Your task to perform on an android device: View the shopping cart on newegg.com. Add "bose soundlink" to the cart on newegg.com, then select checkout. Image 0: 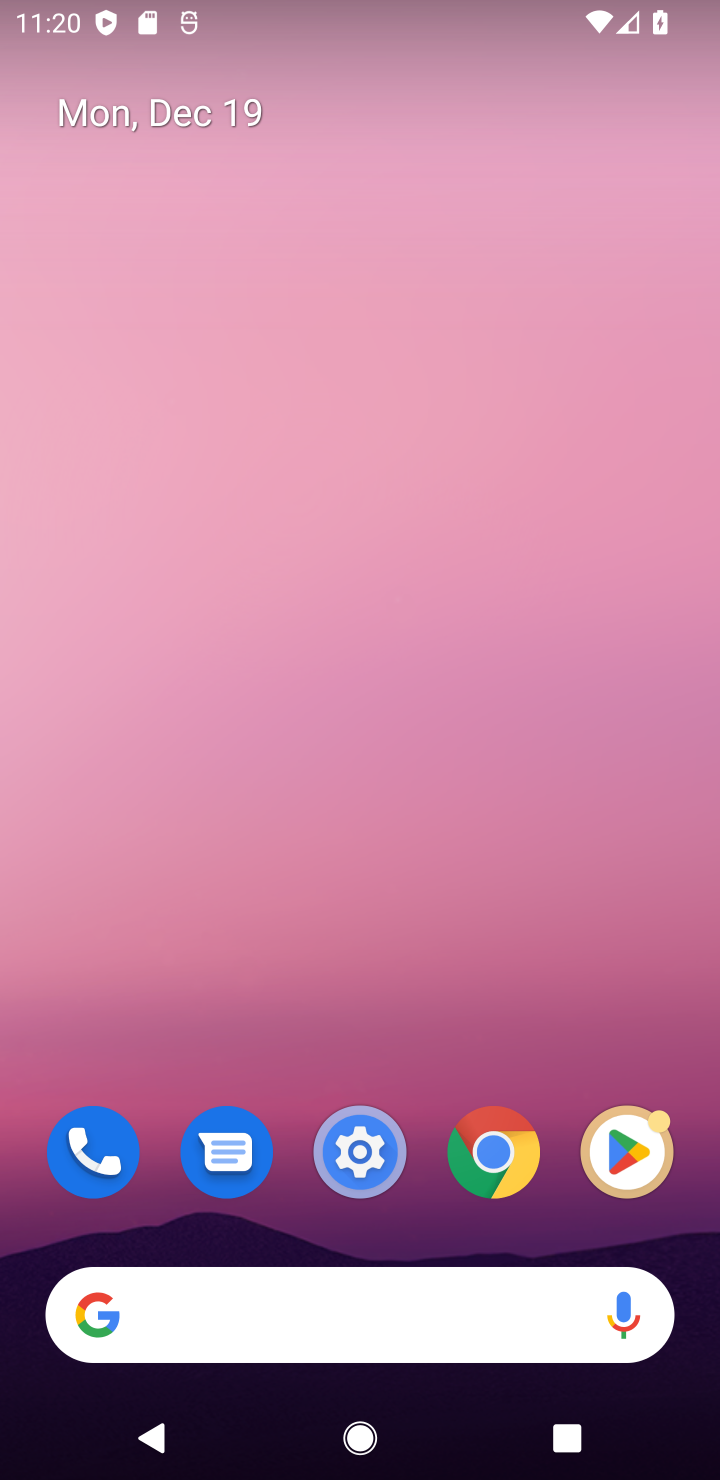
Step 0: click (496, 1151)
Your task to perform on an android device: View the shopping cart on newegg.com. Add "bose soundlink" to the cart on newegg.com, then select checkout. Image 1: 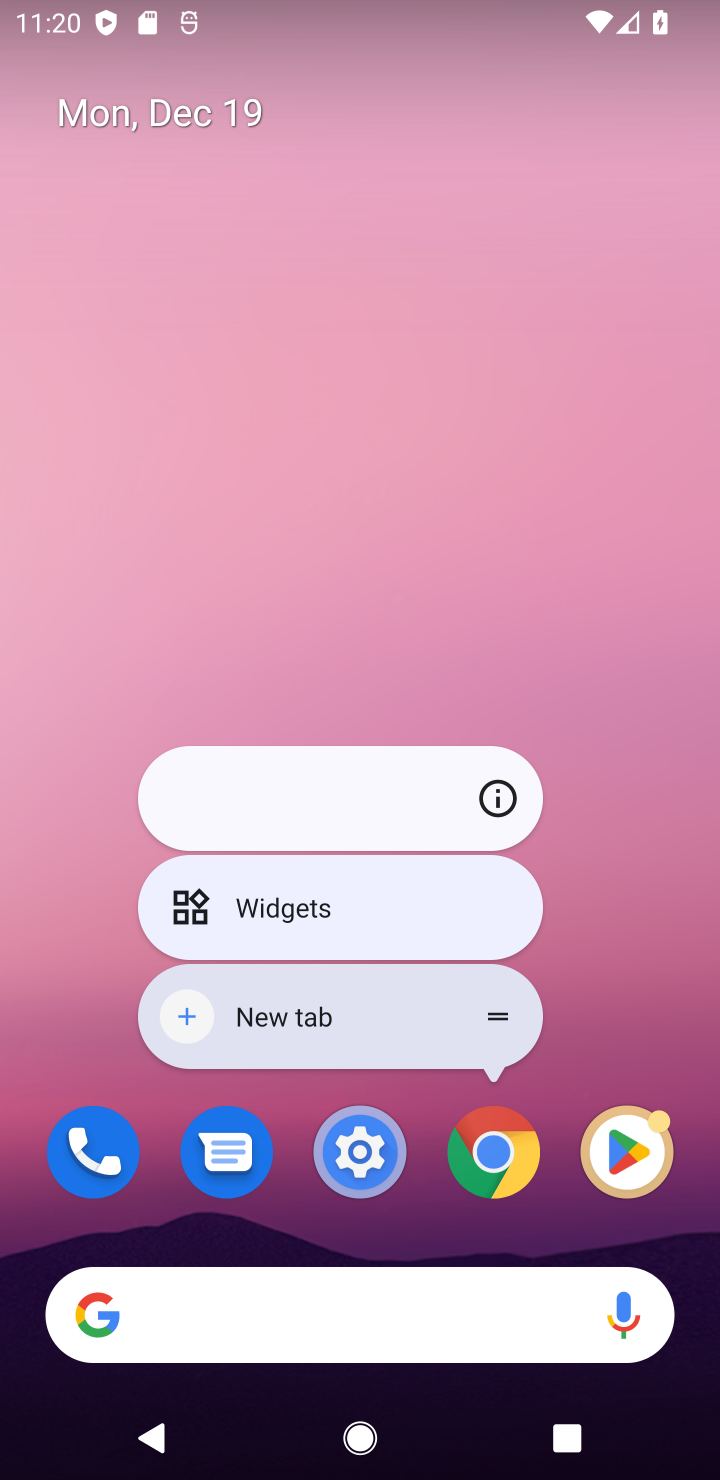
Step 1: click (496, 1151)
Your task to perform on an android device: View the shopping cart on newegg.com. Add "bose soundlink" to the cart on newegg.com, then select checkout. Image 2: 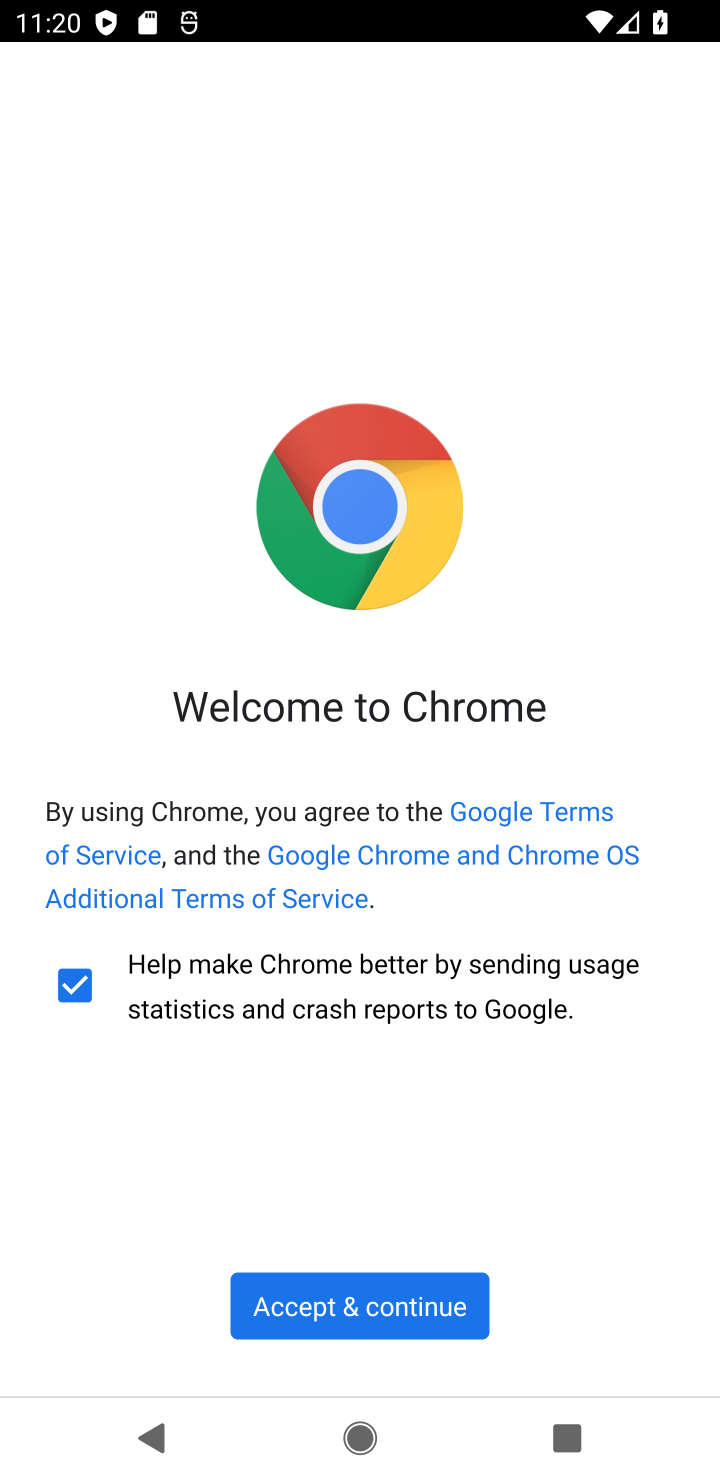
Step 2: click (383, 1305)
Your task to perform on an android device: View the shopping cart on newegg.com. Add "bose soundlink" to the cart on newegg.com, then select checkout. Image 3: 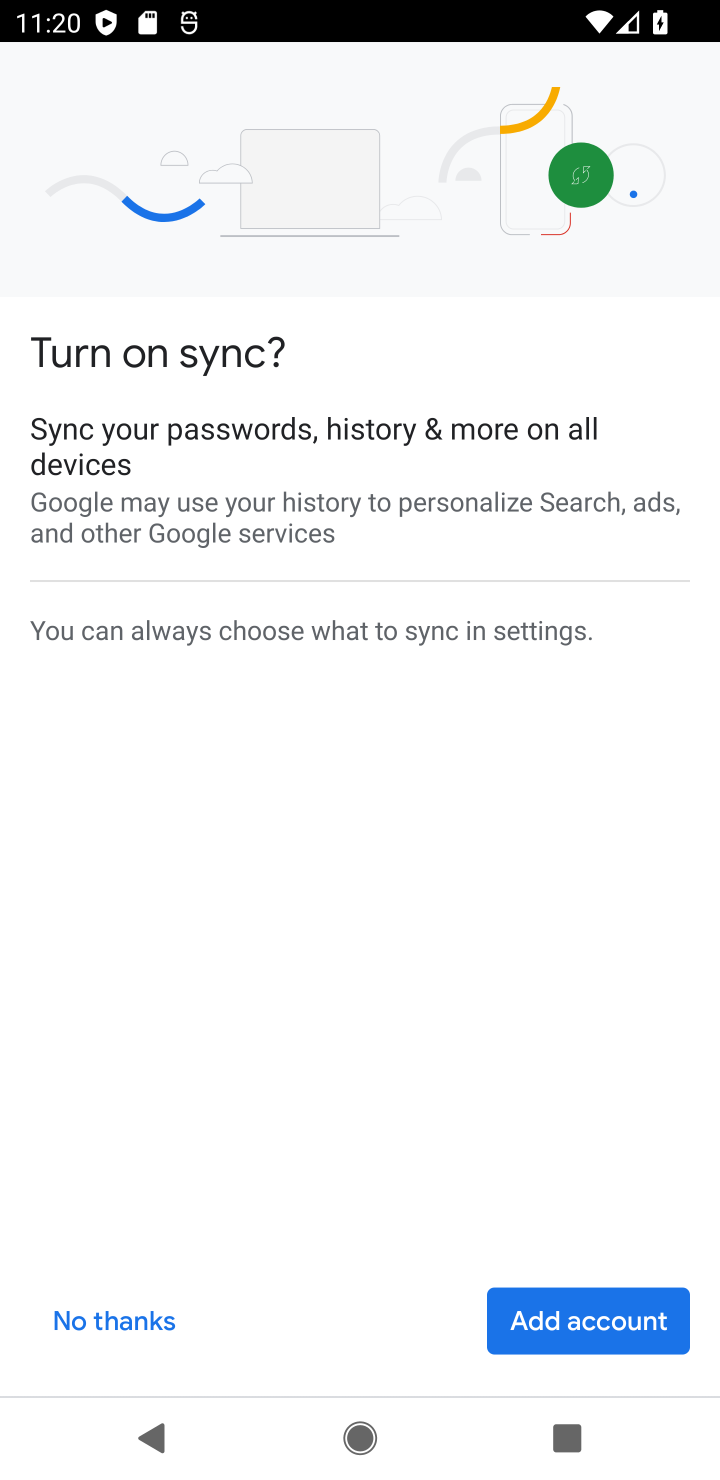
Step 3: click (383, 1305)
Your task to perform on an android device: View the shopping cart on newegg.com. Add "bose soundlink" to the cart on newegg.com, then select checkout. Image 4: 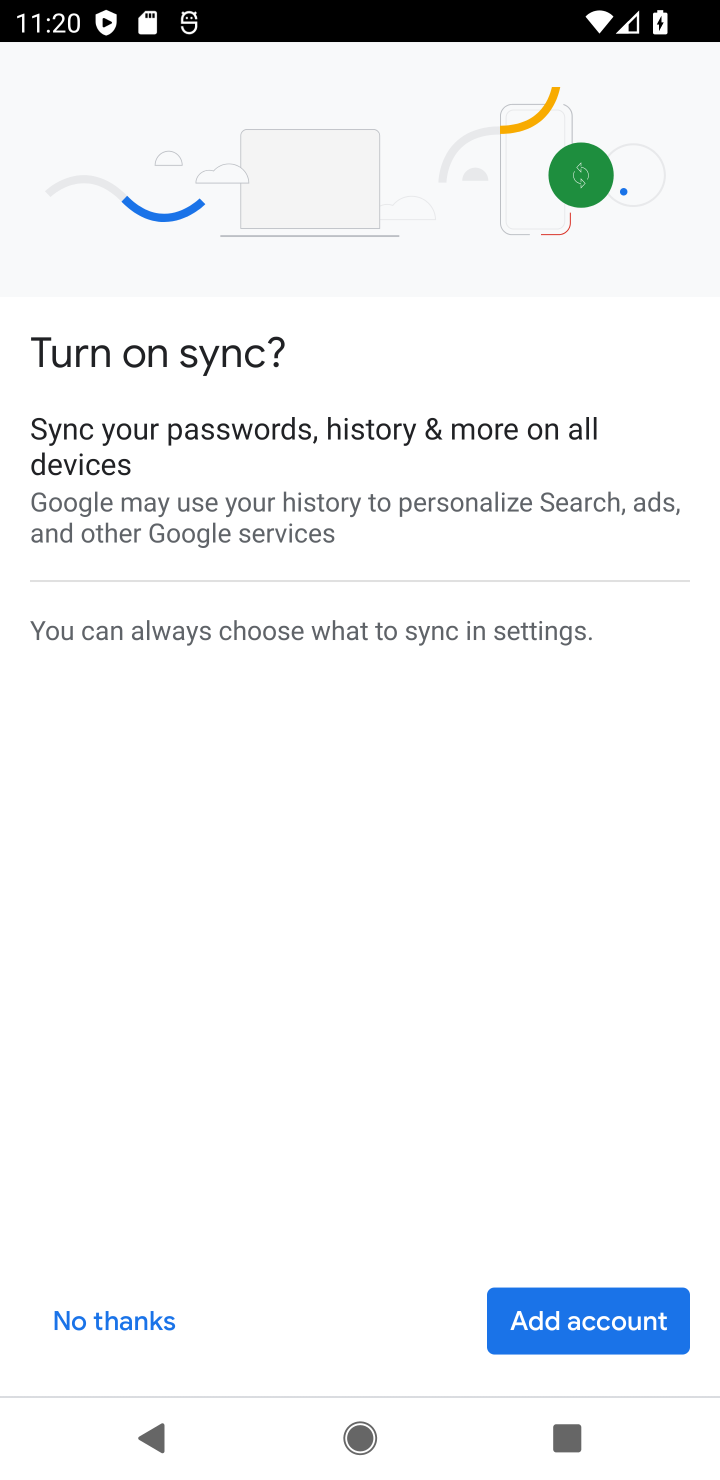
Step 4: click (543, 1335)
Your task to perform on an android device: View the shopping cart on newegg.com. Add "bose soundlink" to the cart on newegg.com, then select checkout. Image 5: 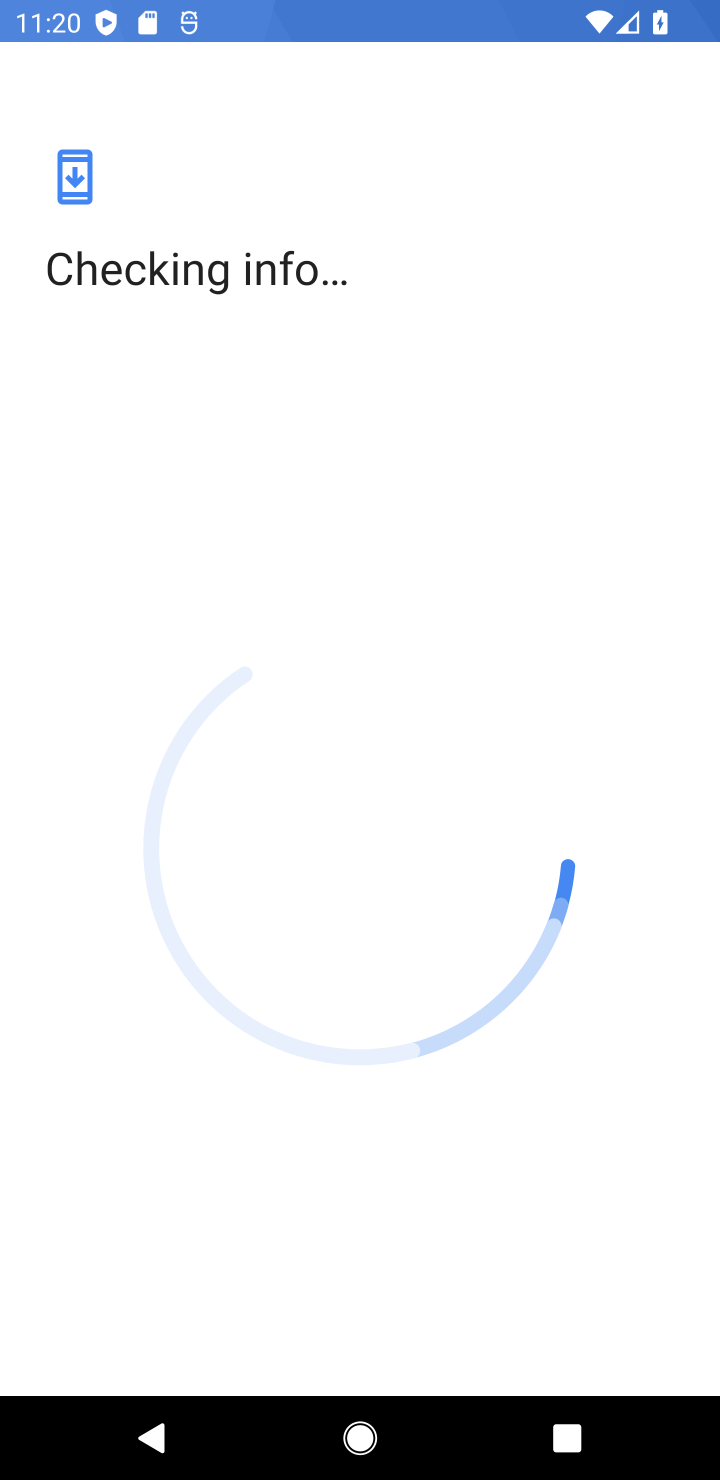
Step 5: click (119, 1312)
Your task to perform on an android device: View the shopping cart on newegg.com. Add "bose soundlink" to the cart on newegg.com, then select checkout. Image 6: 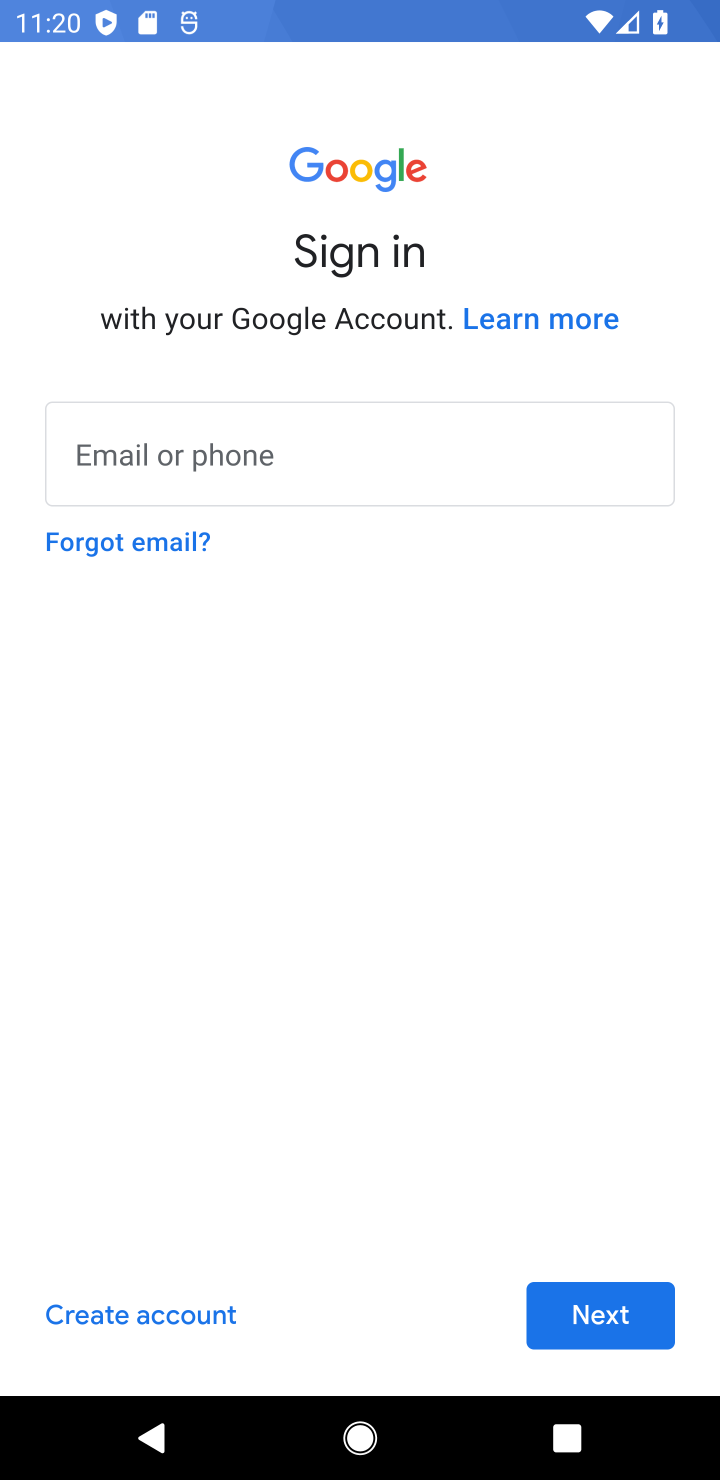
Step 6: press home button
Your task to perform on an android device: View the shopping cart on newegg.com. Add "bose soundlink" to the cart on newegg.com, then select checkout. Image 7: 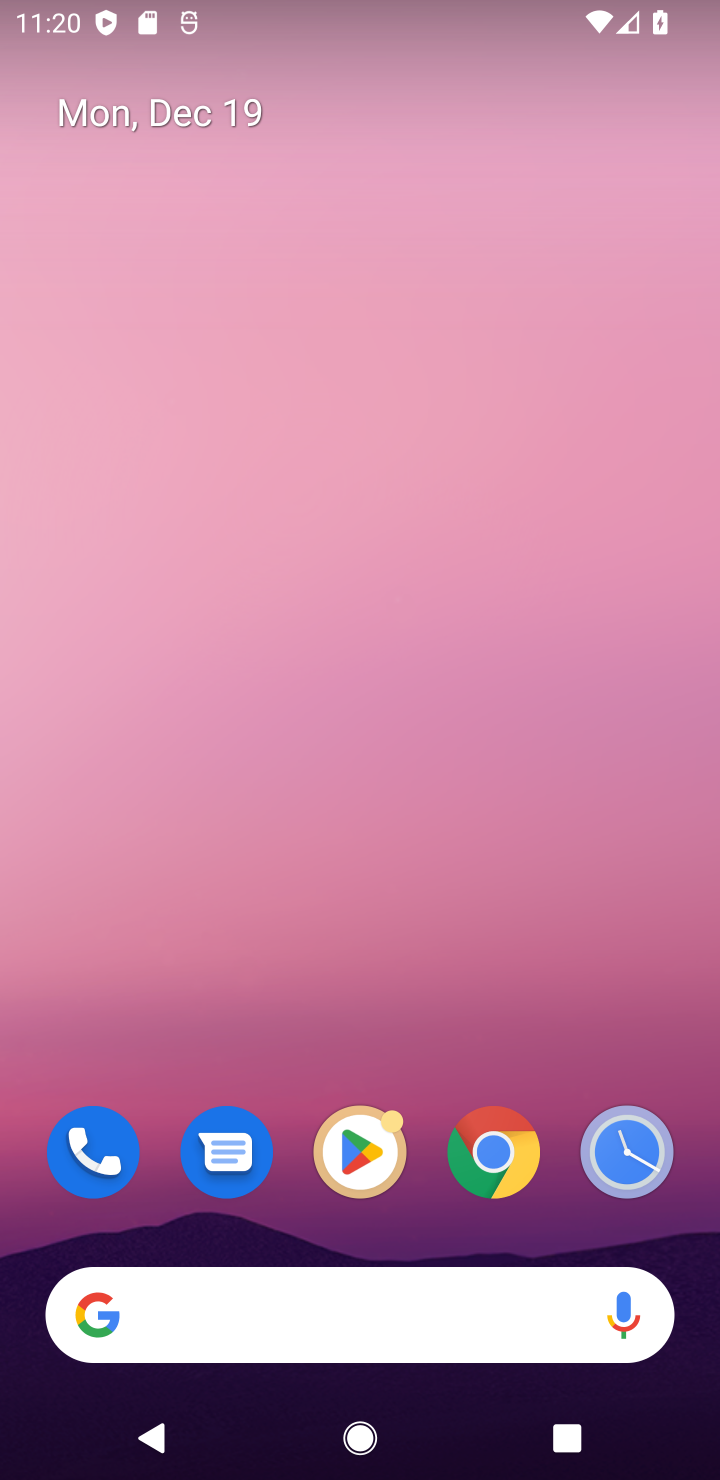
Step 7: click (479, 1150)
Your task to perform on an android device: View the shopping cart on newegg.com. Add "bose soundlink" to the cart on newegg.com, then select checkout. Image 8: 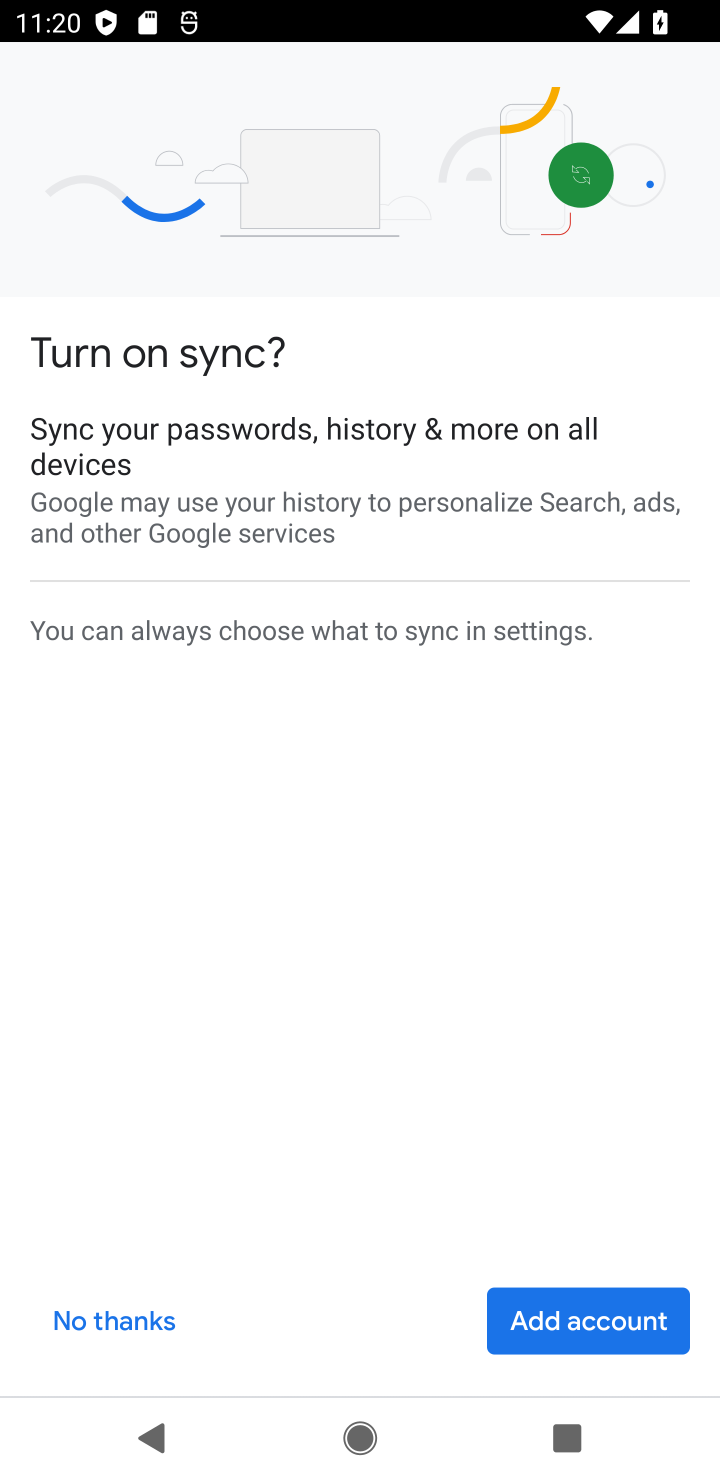
Step 8: click (108, 1314)
Your task to perform on an android device: View the shopping cart on newegg.com. Add "bose soundlink" to the cart on newegg.com, then select checkout. Image 9: 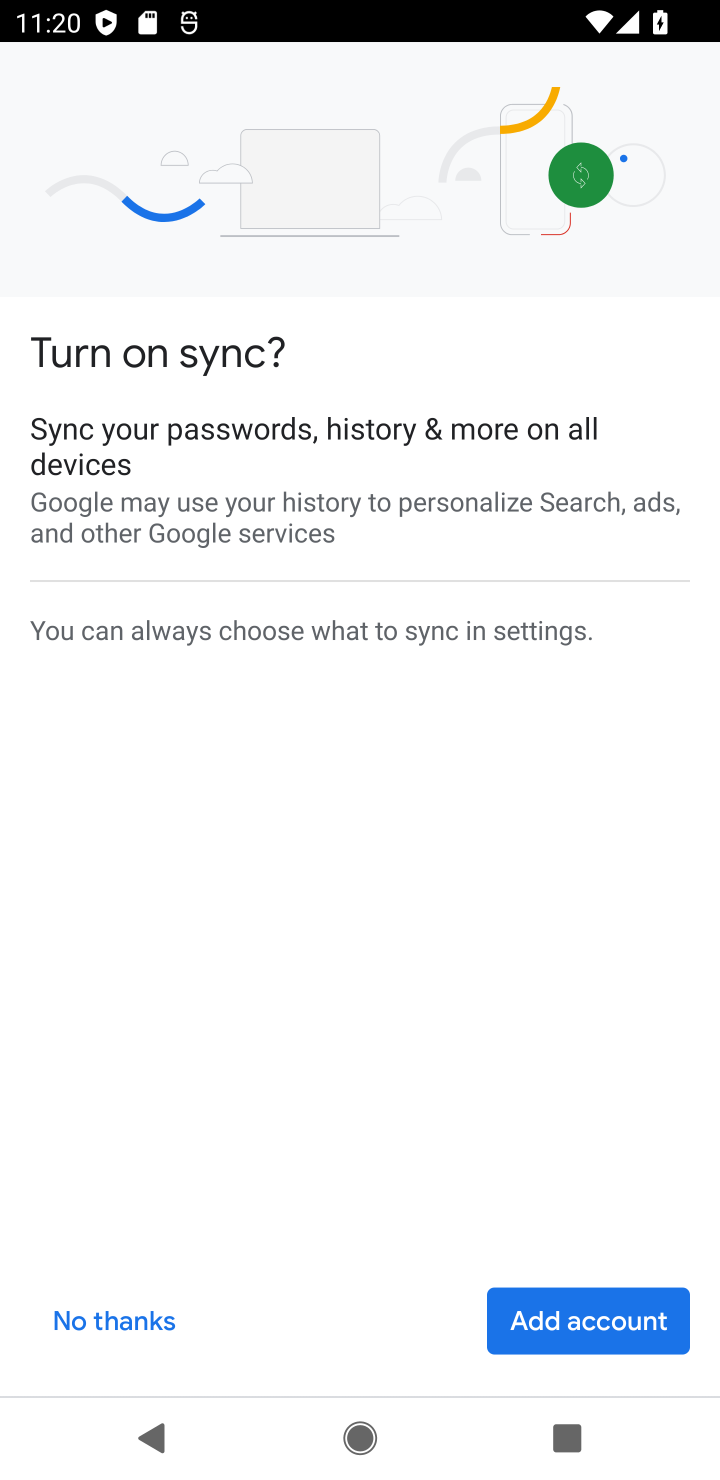
Step 9: click (108, 1314)
Your task to perform on an android device: View the shopping cart on newegg.com. Add "bose soundlink" to the cart on newegg.com, then select checkout. Image 10: 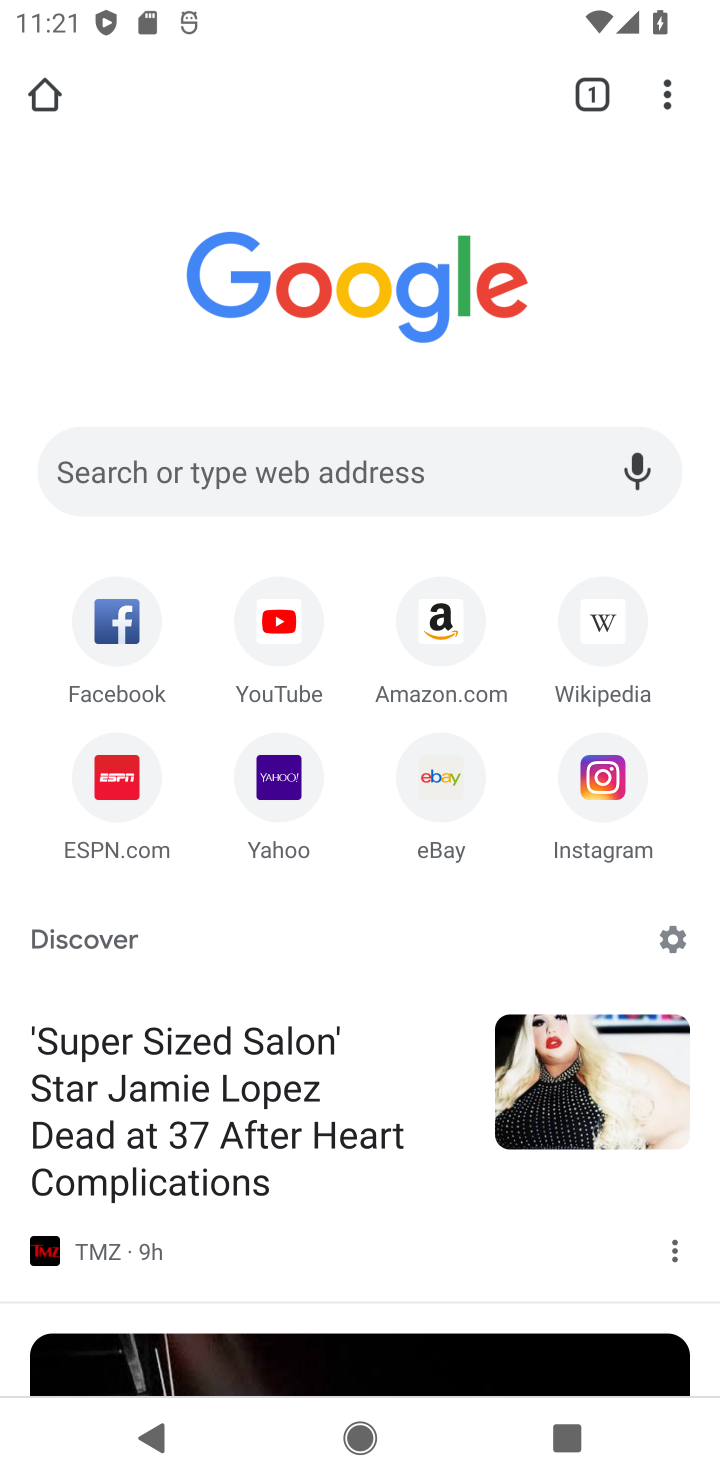
Step 10: click (359, 489)
Your task to perform on an android device: View the shopping cart on newegg.com. Add "bose soundlink" to the cart on newegg.com, then select checkout. Image 11: 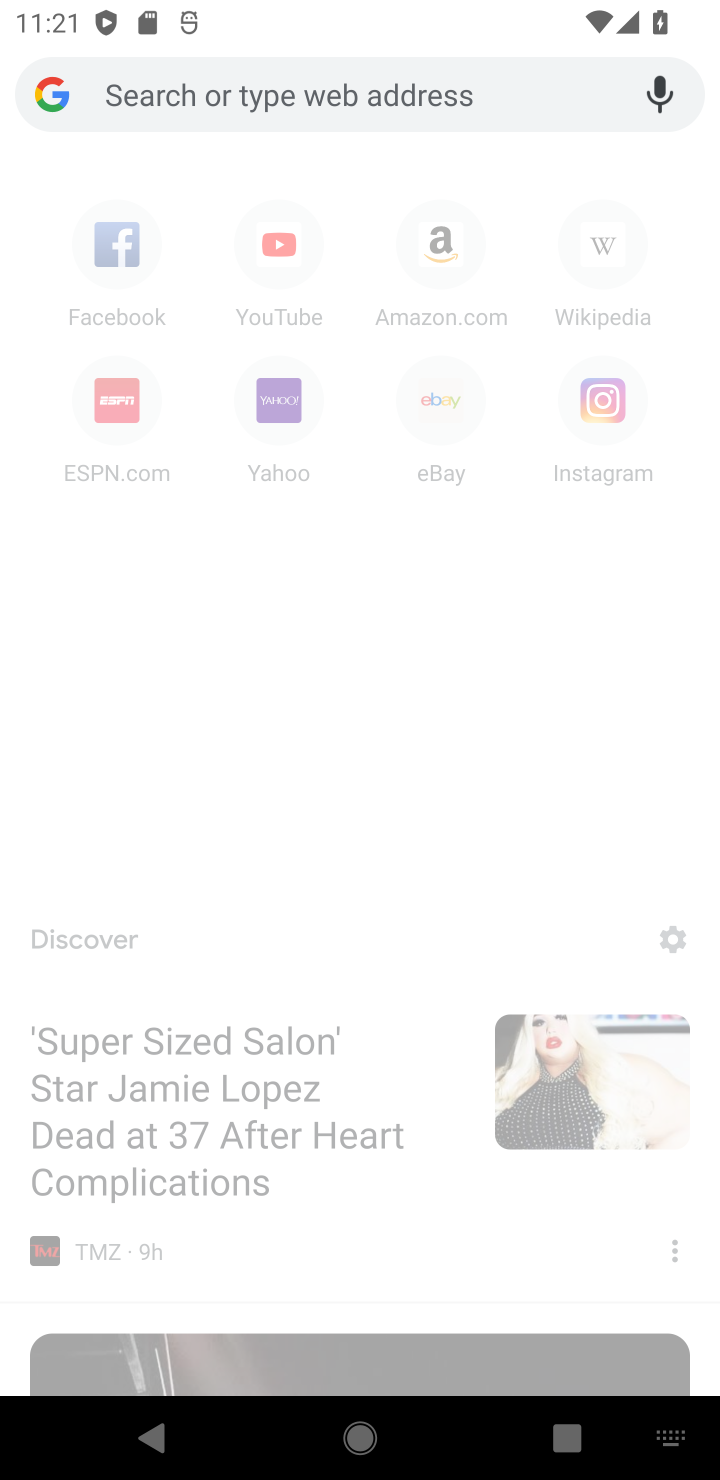
Step 11: type "newegg"
Your task to perform on an android device: View the shopping cart on newegg.com. Add "bose soundlink" to the cart on newegg.com, then select checkout. Image 12: 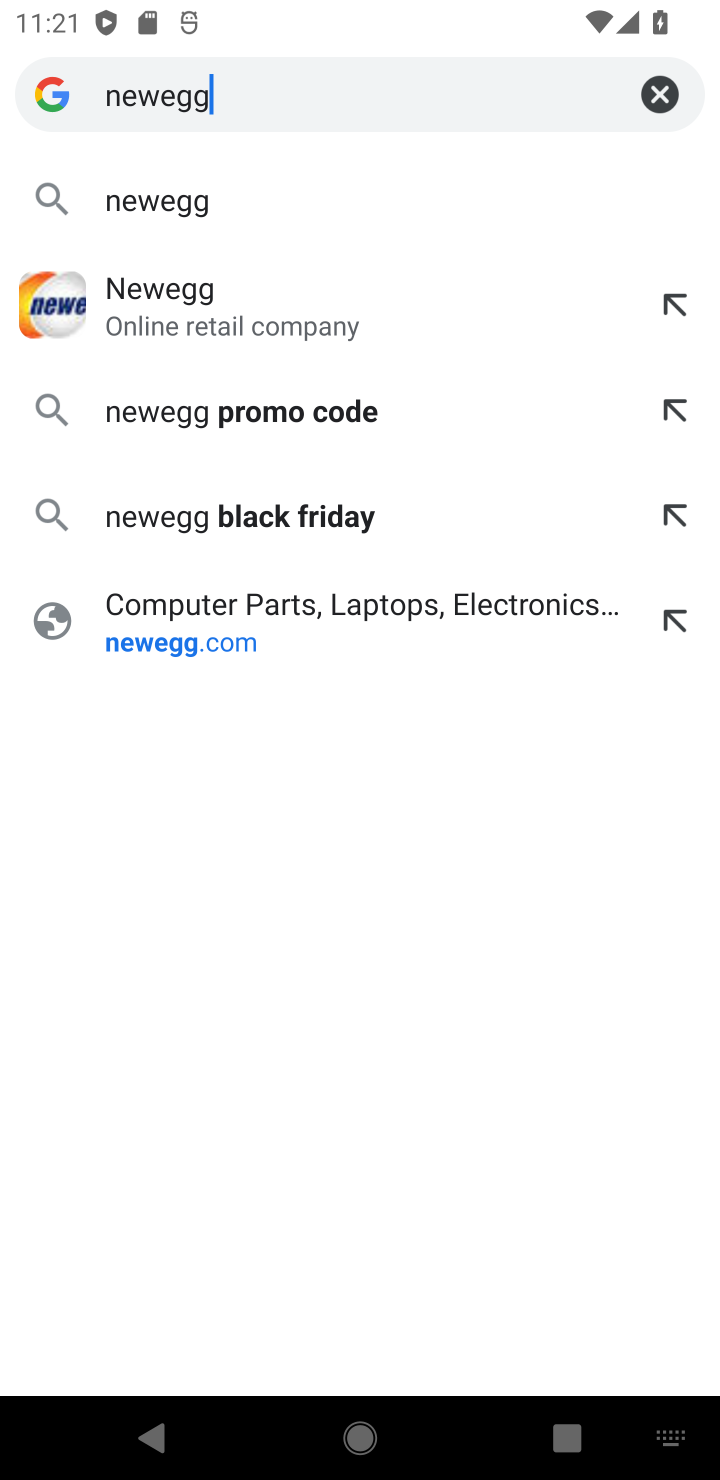
Step 12: click (250, 310)
Your task to perform on an android device: View the shopping cart on newegg.com. Add "bose soundlink" to the cart on newegg.com, then select checkout. Image 13: 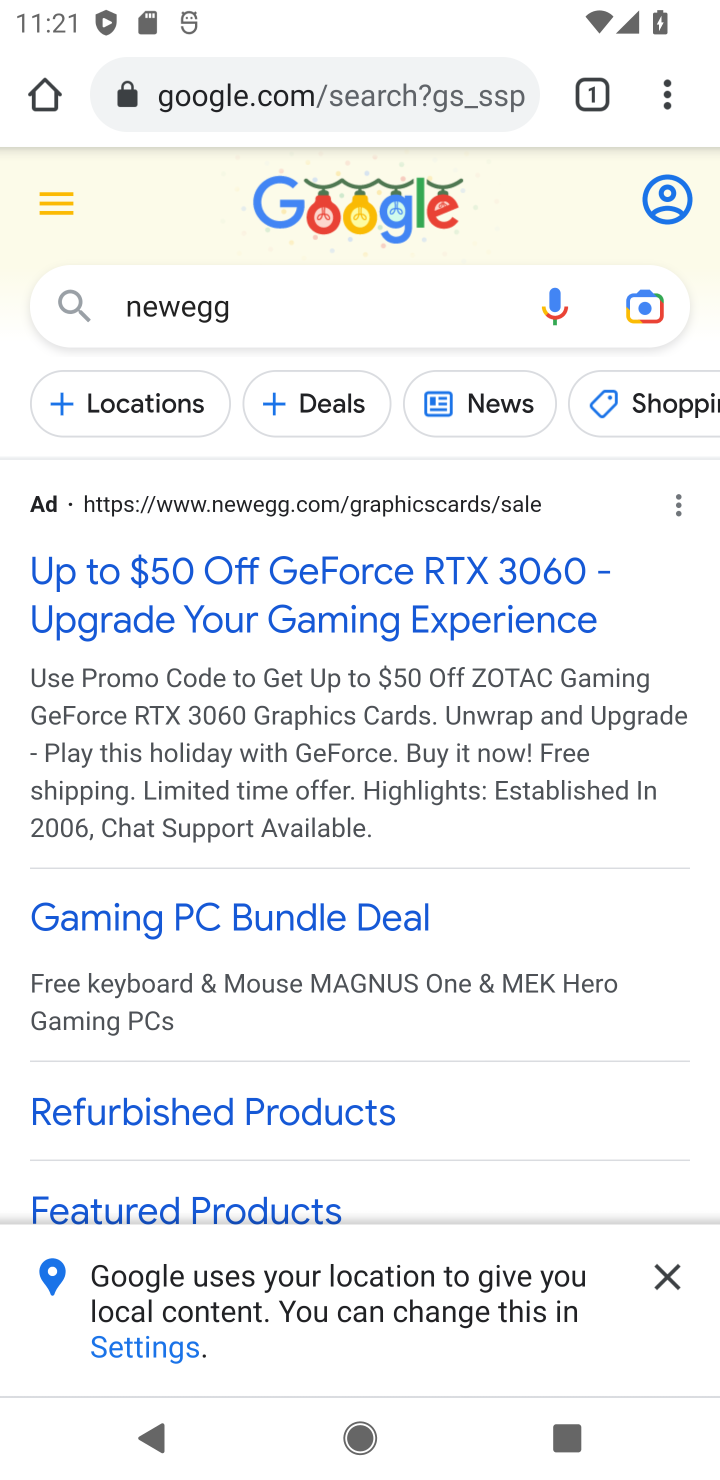
Step 13: drag from (440, 1019) to (380, 427)
Your task to perform on an android device: View the shopping cart on newegg.com. Add "bose soundlink" to the cart on newegg.com, then select checkout. Image 14: 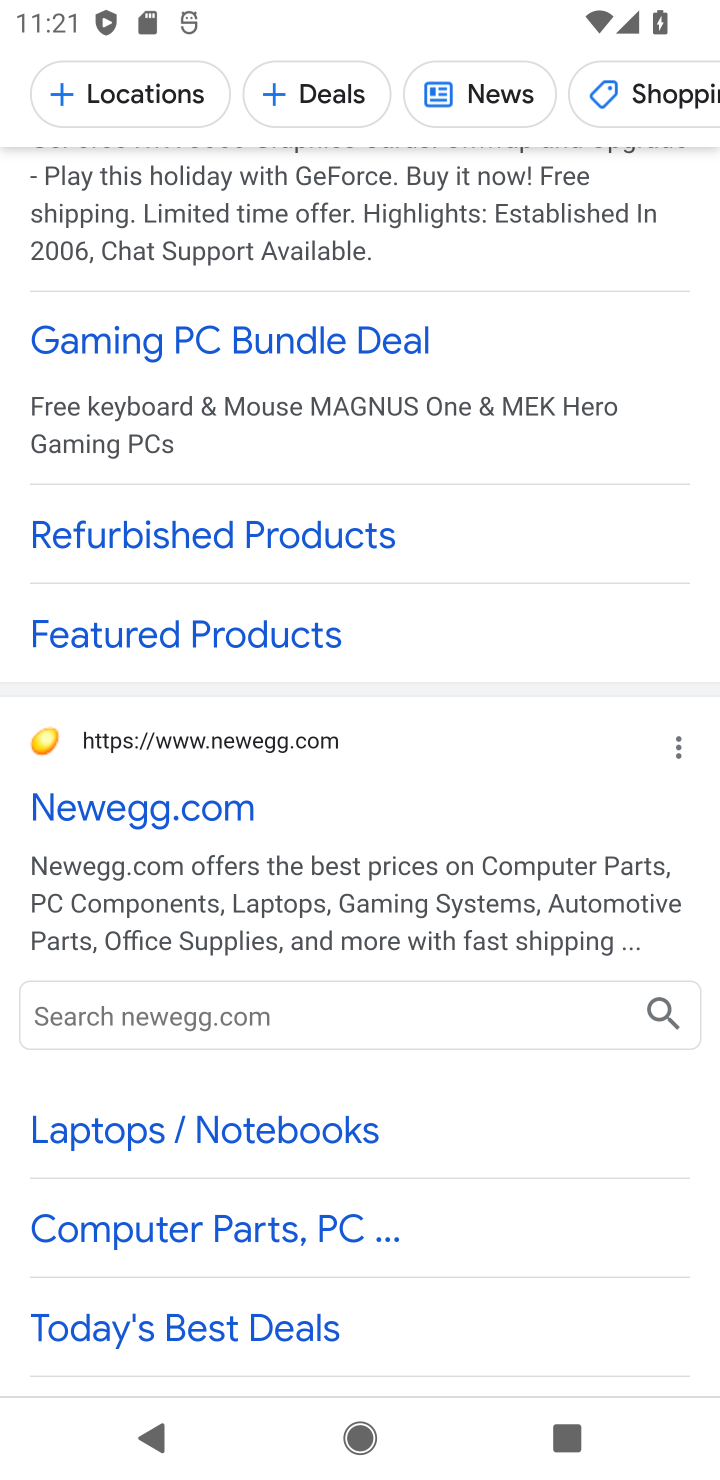
Step 14: click (154, 812)
Your task to perform on an android device: View the shopping cart on newegg.com. Add "bose soundlink" to the cart on newegg.com, then select checkout. Image 15: 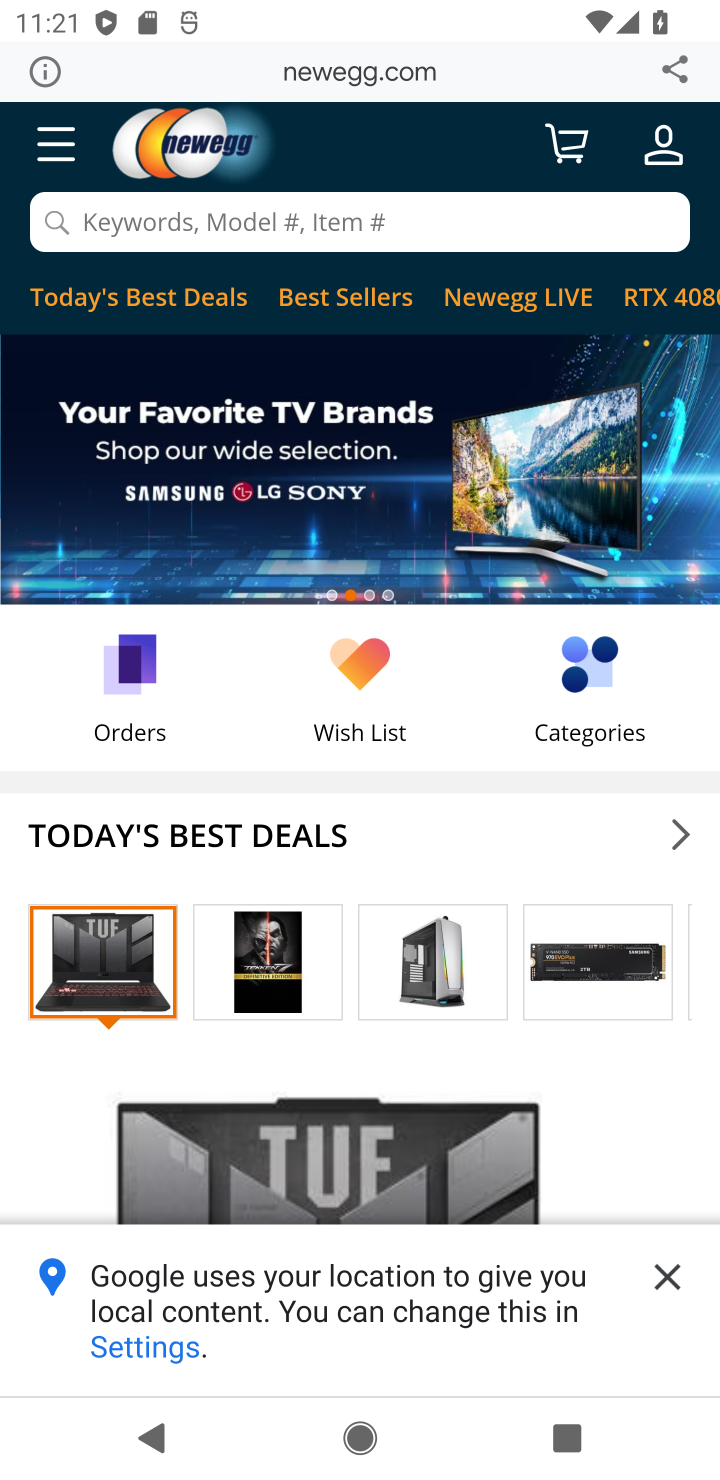
Step 15: click (425, 227)
Your task to perform on an android device: View the shopping cart on newegg.com. Add "bose soundlink" to the cart on newegg.com, then select checkout. Image 16: 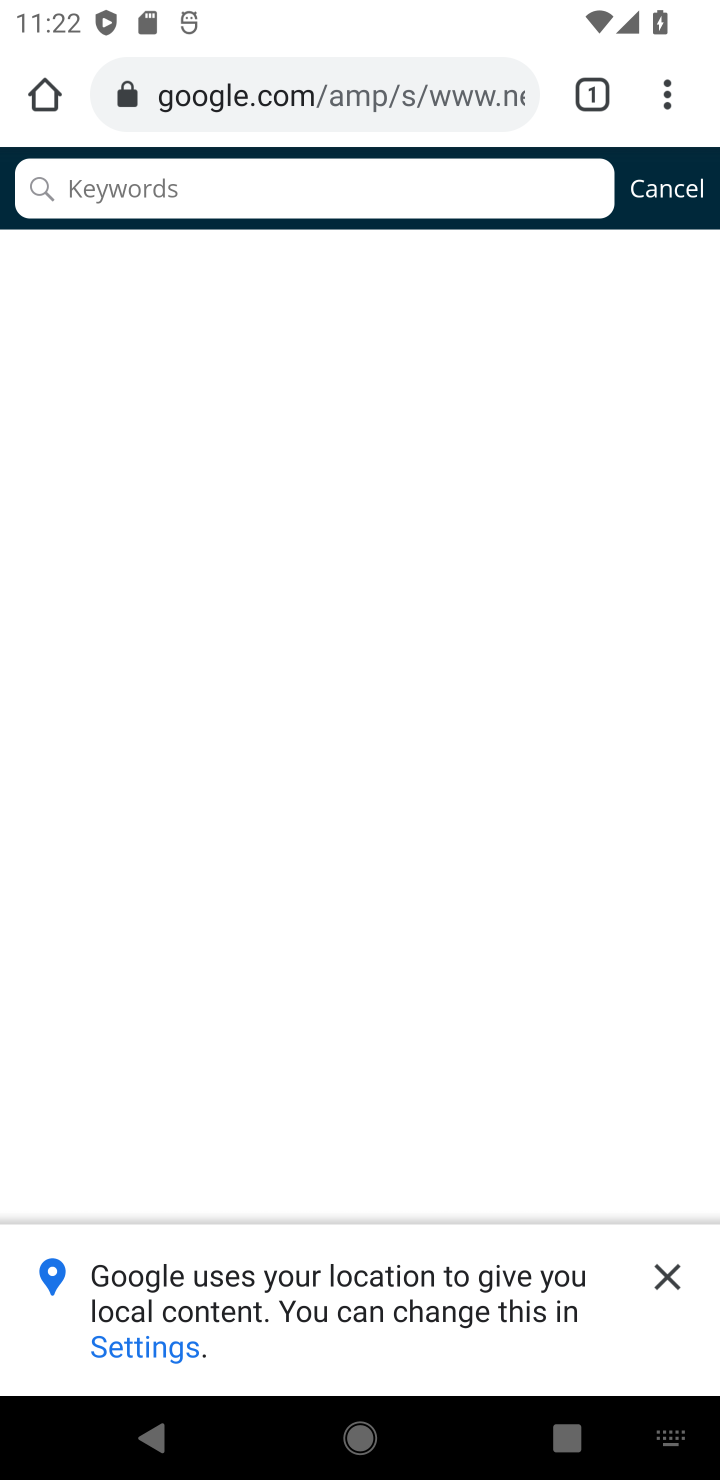
Step 16: type "bose soundlink"
Your task to perform on an android device: View the shopping cart on newegg.com. Add "bose soundlink" to the cart on newegg.com, then select checkout. Image 17: 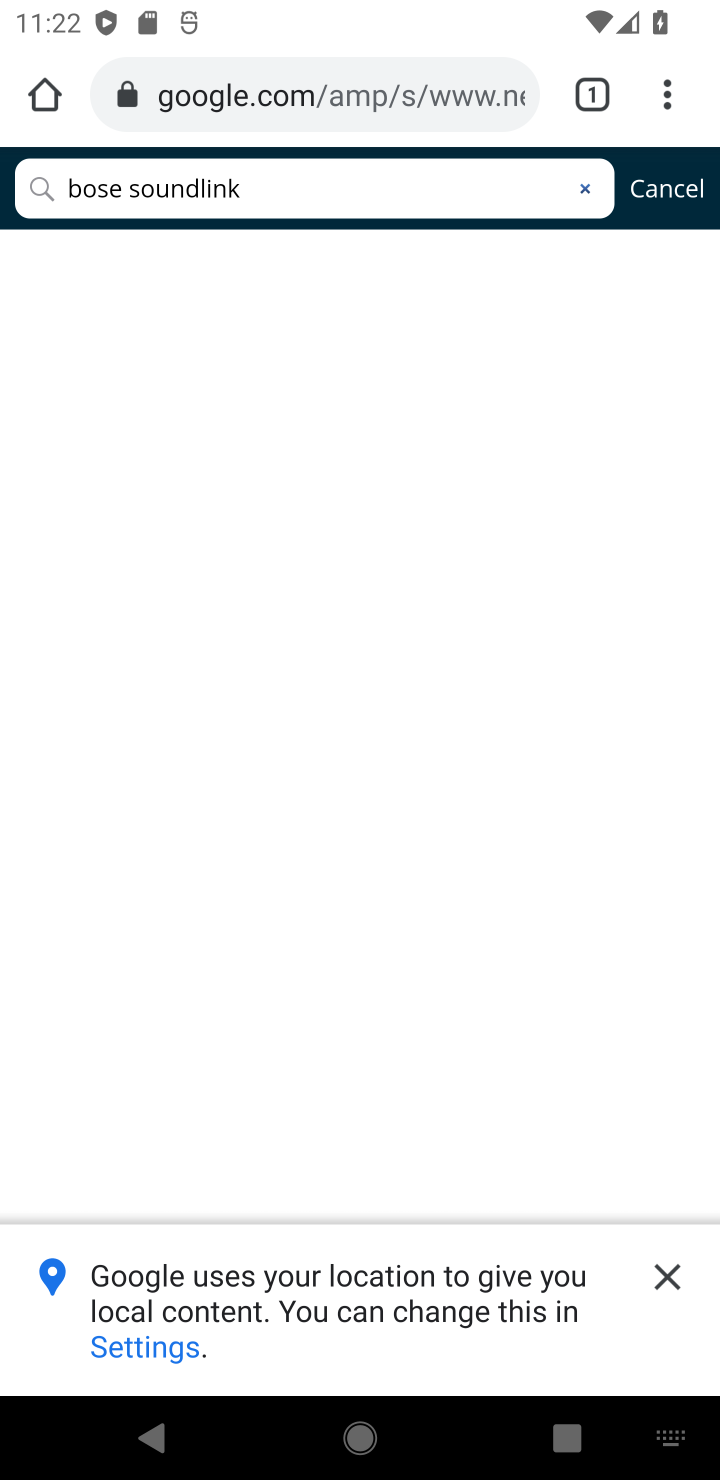
Step 17: task complete